Your task to perform on an android device: toggle notification dots Image 0: 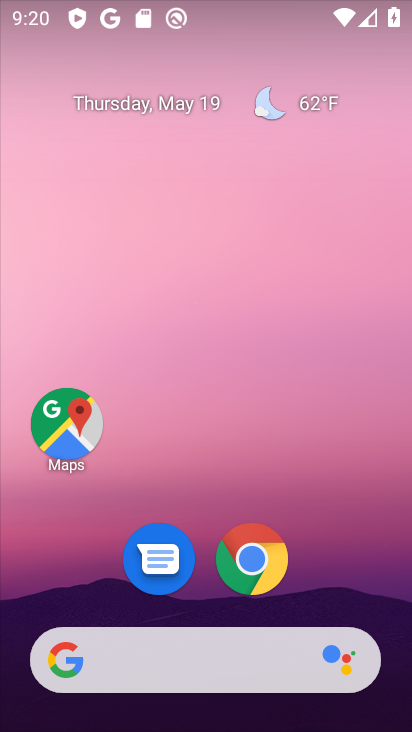
Step 0: drag from (340, 517) to (291, 116)
Your task to perform on an android device: toggle notification dots Image 1: 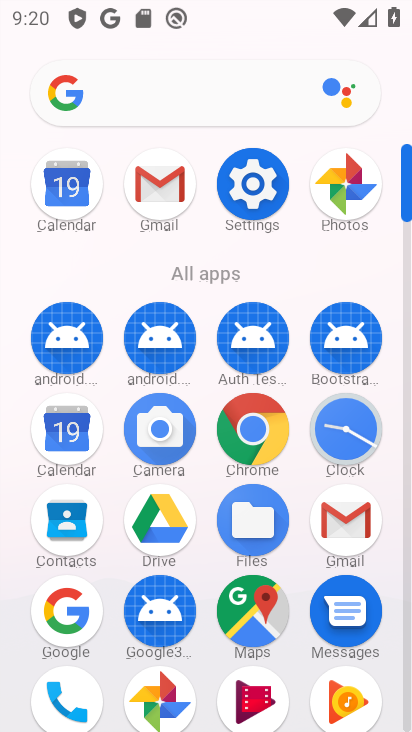
Step 1: click (258, 174)
Your task to perform on an android device: toggle notification dots Image 2: 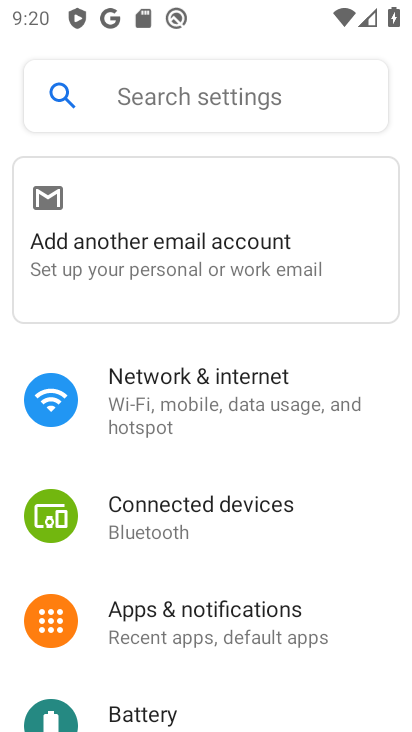
Step 2: drag from (221, 557) to (236, 306)
Your task to perform on an android device: toggle notification dots Image 3: 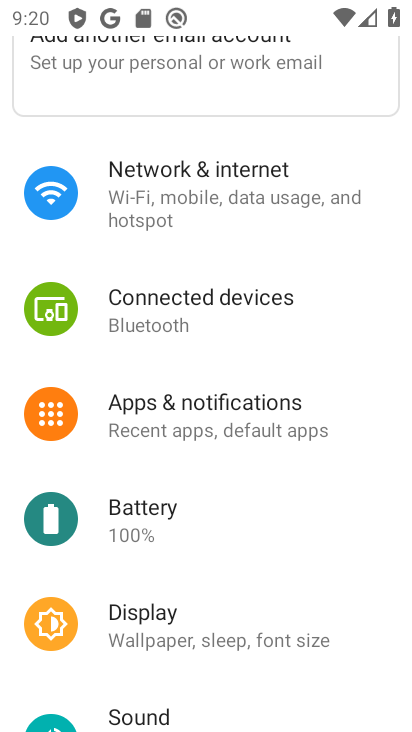
Step 3: click (199, 401)
Your task to perform on an android device: toggle notification dots Image 4: 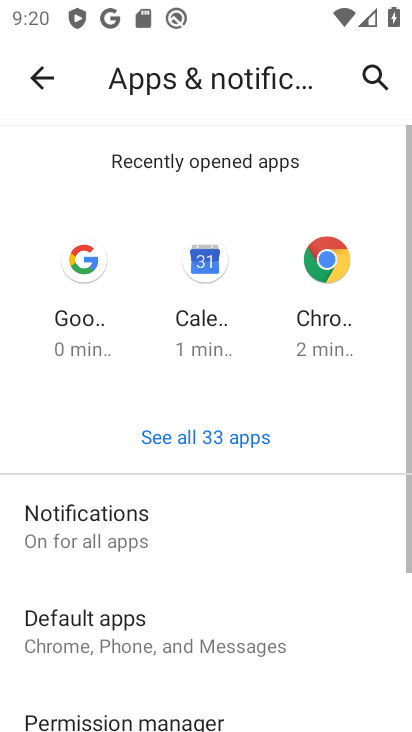
Step 4: drag from (282, 534) to (266, 140)
Your task to perform on an android device: toggle notification dots Image 5: 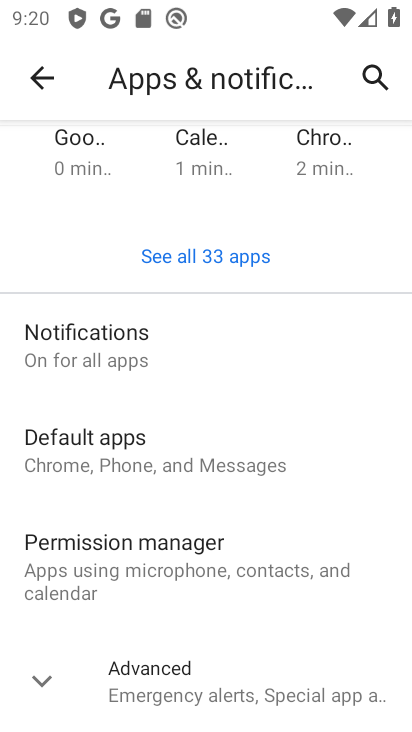
Step 5: click (241, 679)
Your task to perform on an android device: toggle notification dots Image 6: 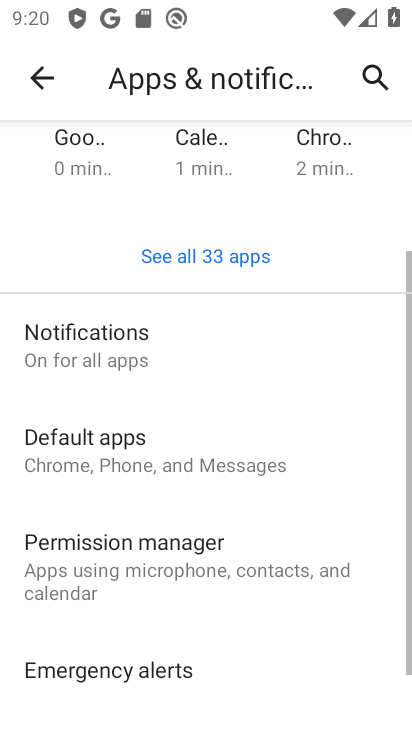
Step 6: drag from (250, 656) to (264, 226)
Your task to perform on an android device: toggle notification dots Image 7: 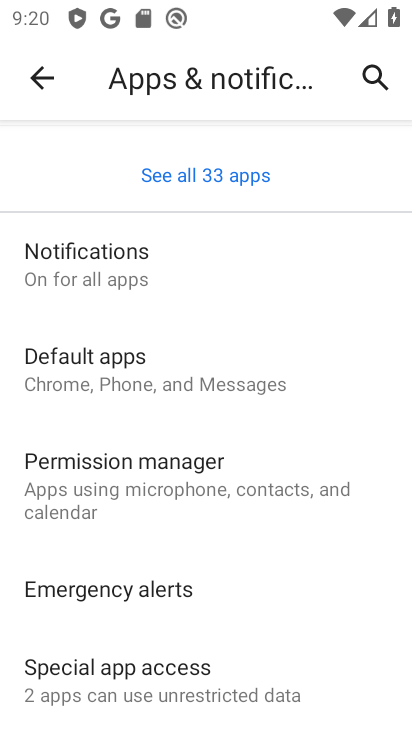
Step 7: click (89, 255)
Your task to perform on an android device: toggle notification dots Image 8: 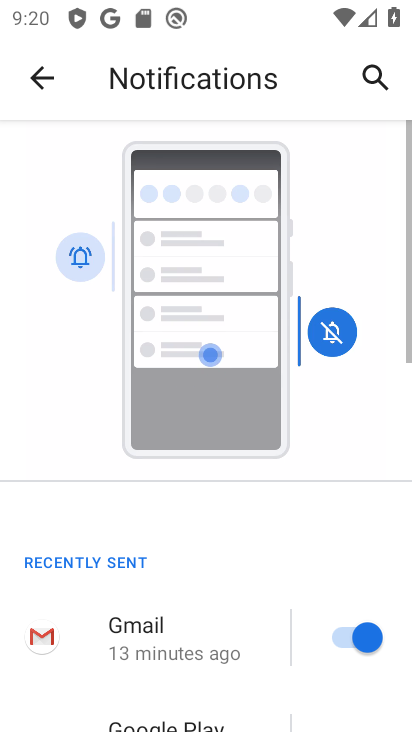
Step 8: drag from (246, 633) to (278, 199)
Your task to perform on an android device: toggle notification dots Image 9: 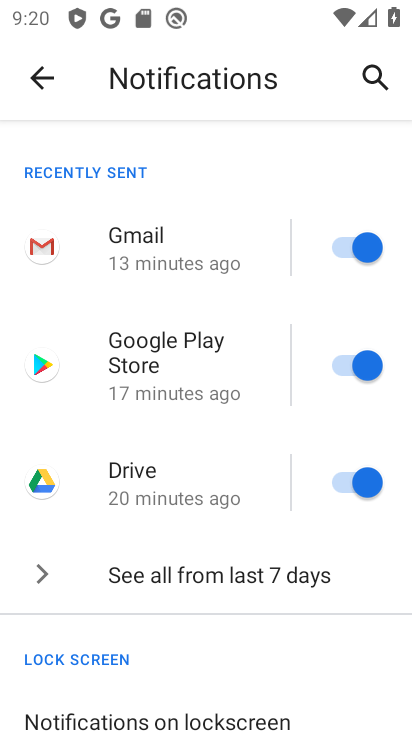
Step 9: drag from (294, 671) to (209, 191)
Your task to perform on an android device: toggle notification dots Image 10: 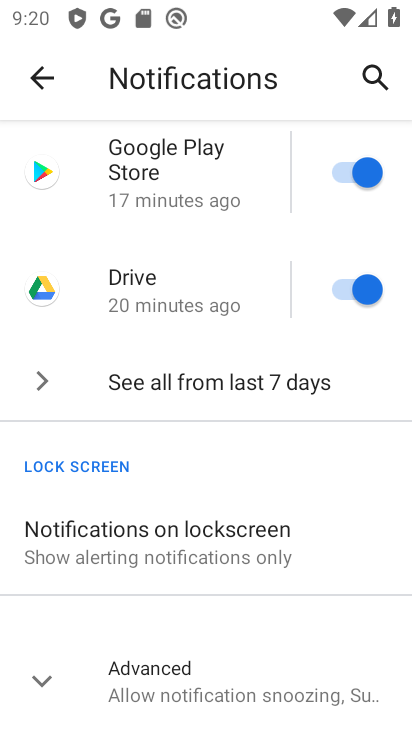
Step 10: click (167, 684)
Your task to perform on an android device: toggle notification dots Image 11: 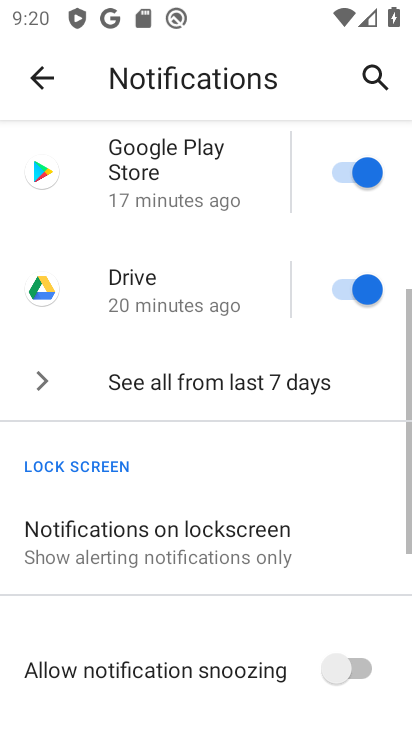
Step 11: drag from (353, 654) to (334, 291)
Your task to perform on an android device: toggle notification dots Image 12: 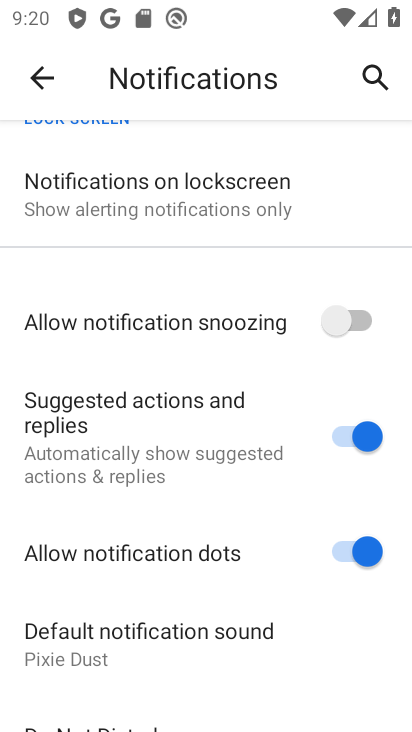
Step 12: click (354, 541)
Your task to perform on an android device: toggle notification dots Image 13: 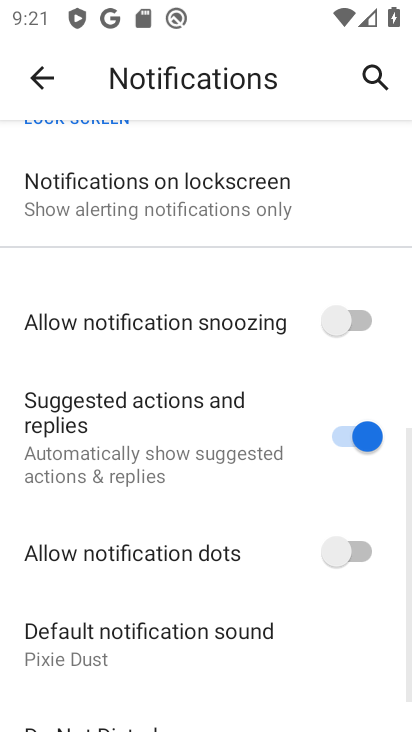
Step 13: task complete